Your task to perform on an android device: turn pop-ups on in chrome Image 0: 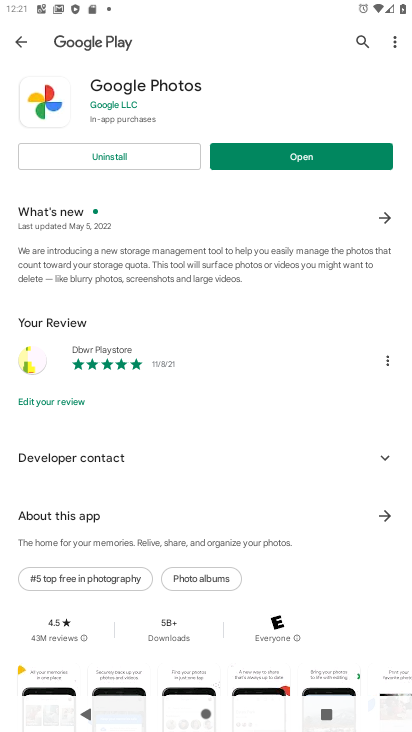
Step 0: press home button
Your task to perform on an android device: turn pop-ups on in chrome Image 1: 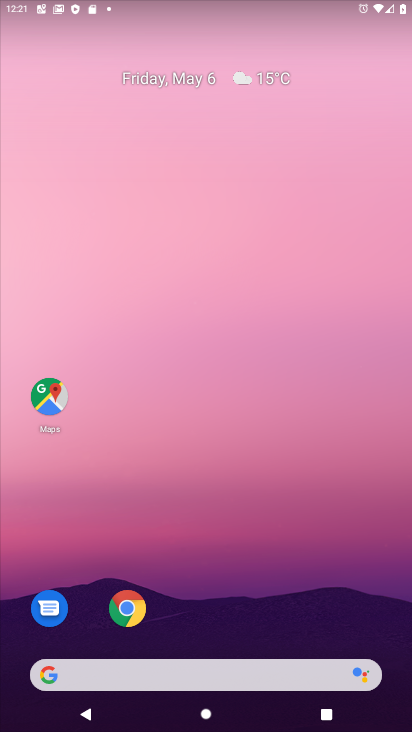
Step 1: click (138, 604)
Your task to perform on an android device: turn pop-ups on in chrome Image 2: 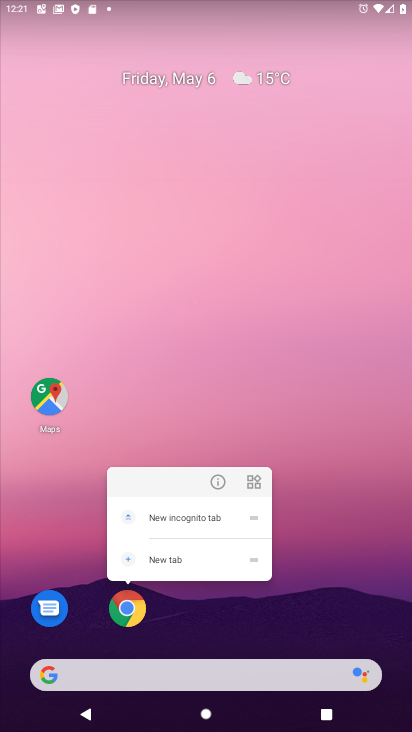
Step 2: click (123, 616)
Your task to perform on an android device: turn pop-ups on in chrome Image 3: 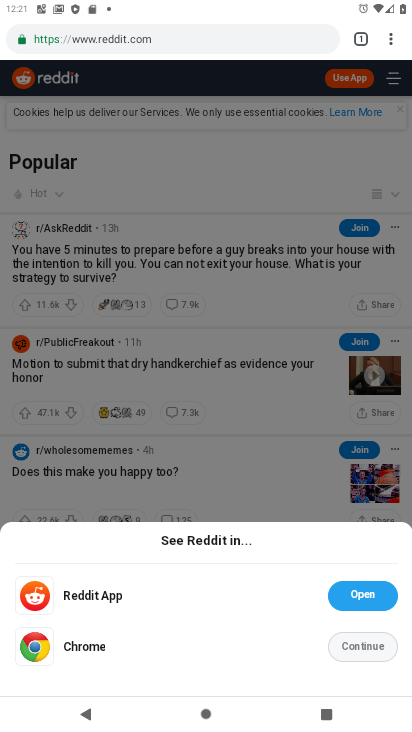
Step 3: drag from (394, 45) to (268, 471)
Your task to perform on an android device: turn pop-ups on in chrome Image 4: 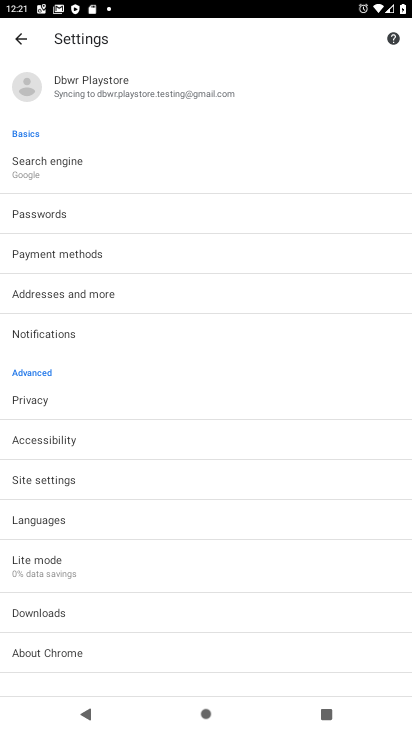
Step 4: click (73, 479)
Your task to perform on an android device: turn pop-ups on in chrome Image 5: 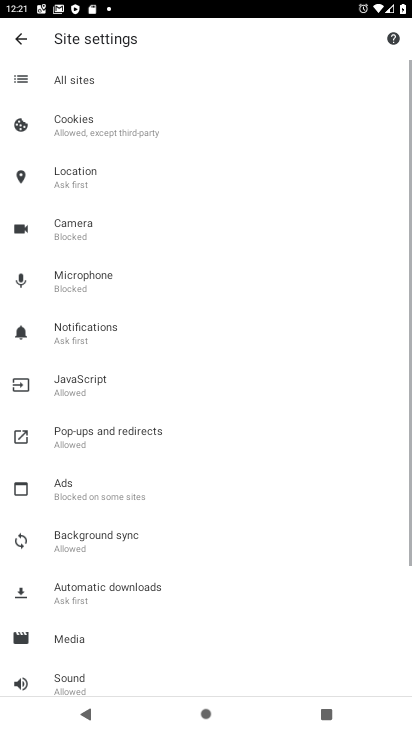
Step 5: click (85, 438)
Your task to perform on an android device: turn pop-ups on in chrome Image 6: 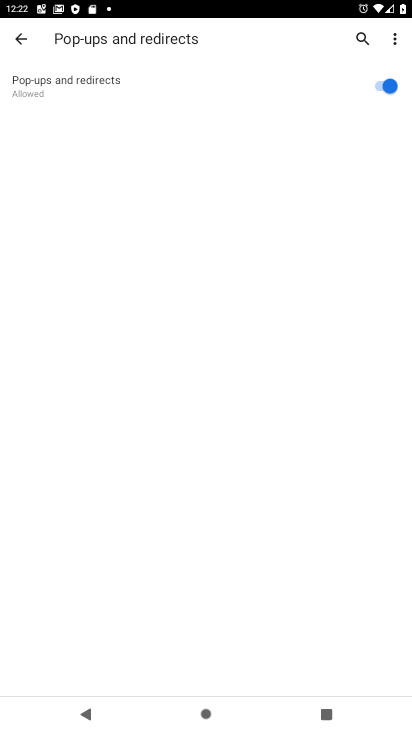
Step 6: task complete